Your task to perform on an android device: turn on data saver in the chrome app Image 0: 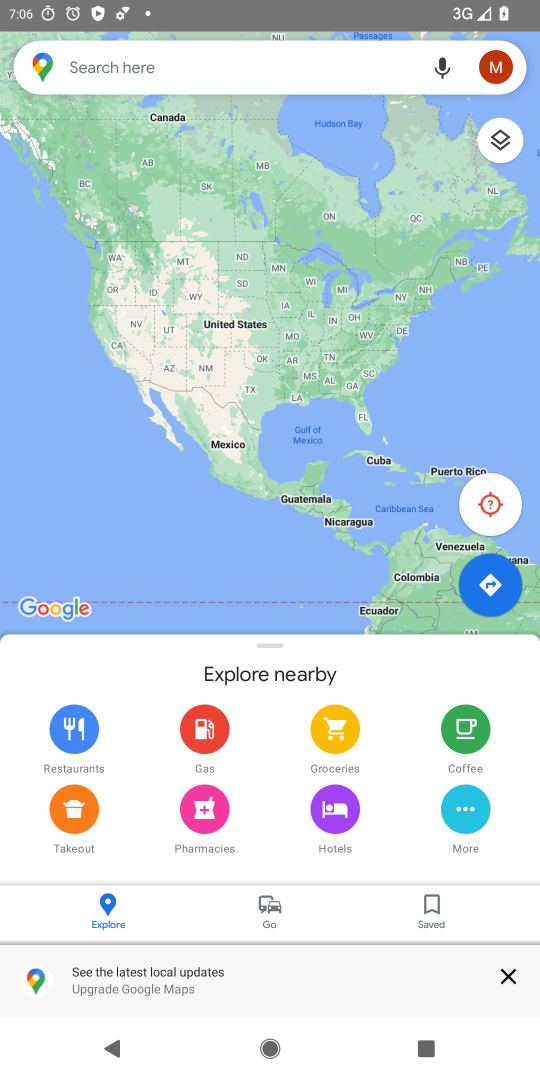
Step 0: press home button
Your task to perform on an android device: turn on data saver in the chrome app Image 1: 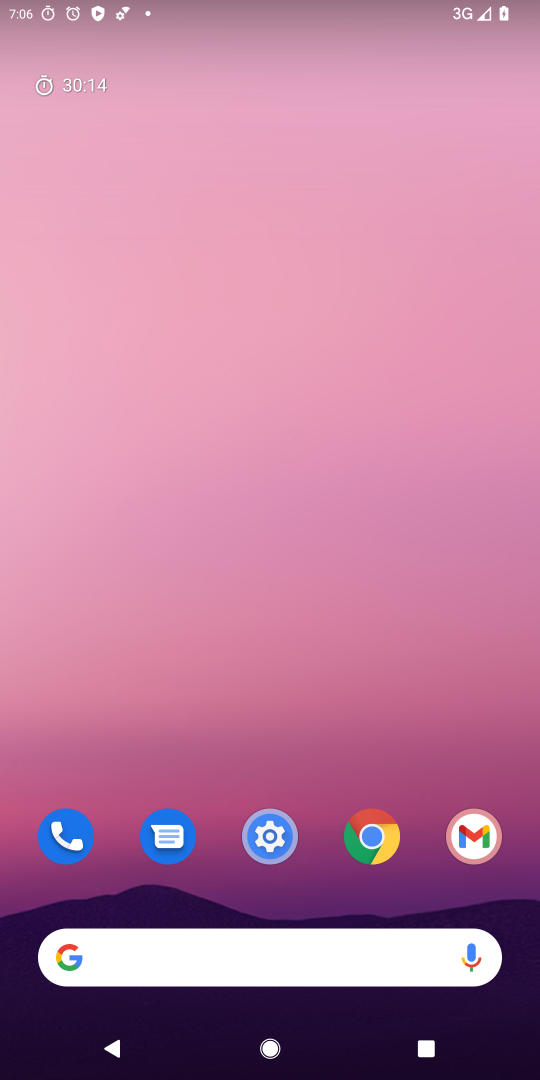
Step 1: drag from (310, 875) to (376, 271)
Your task to perform on an android device: turn on data saver in the chrome app Image 2: 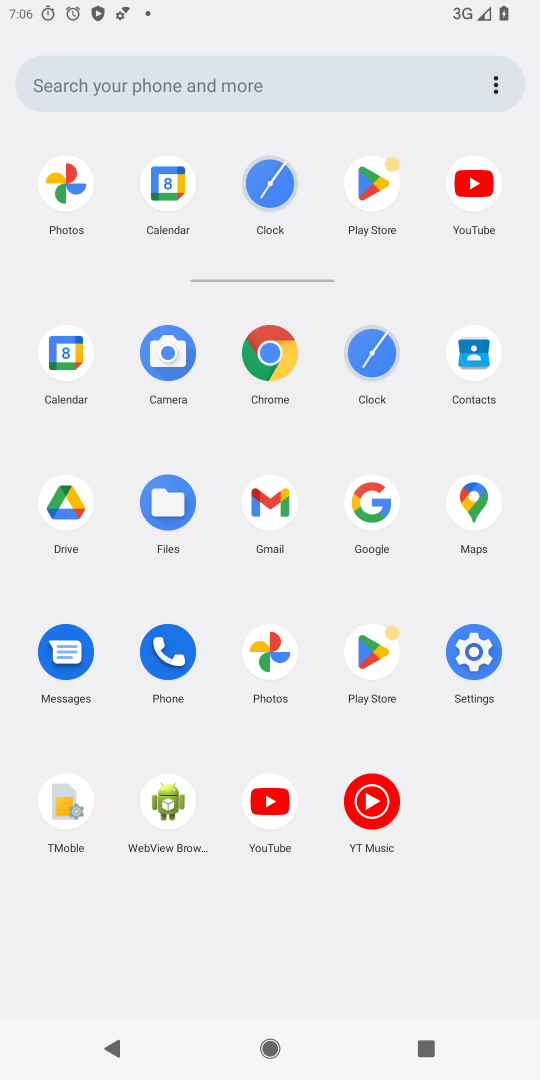
Step 2: click (287, 360)
Your task to perform on an android device: turn on data saver in the chrome app Image 3: 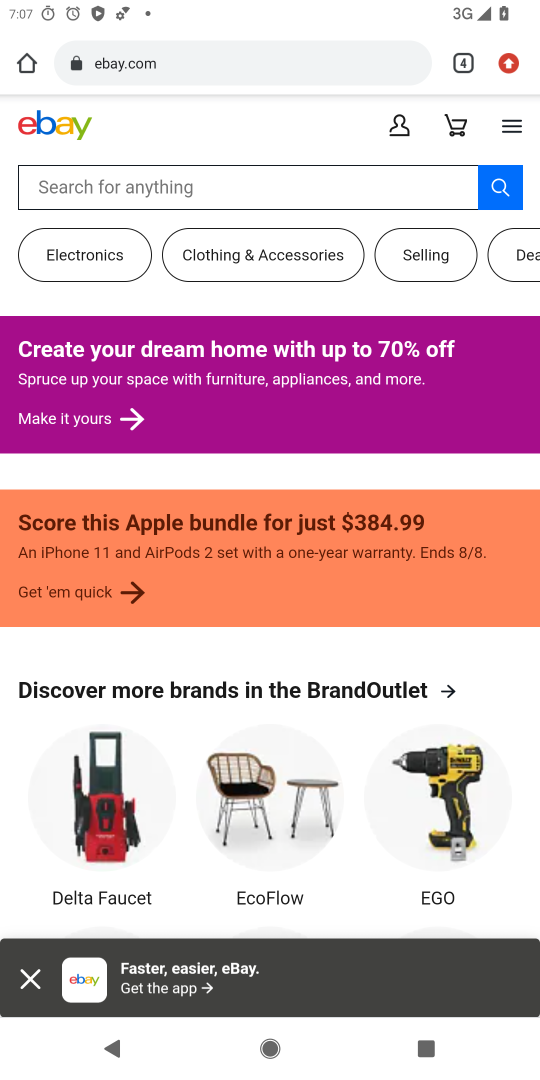
Step 3: click (515, 74)
Your task to perform on an android device: turn on data saver in the chrome app Image 4: 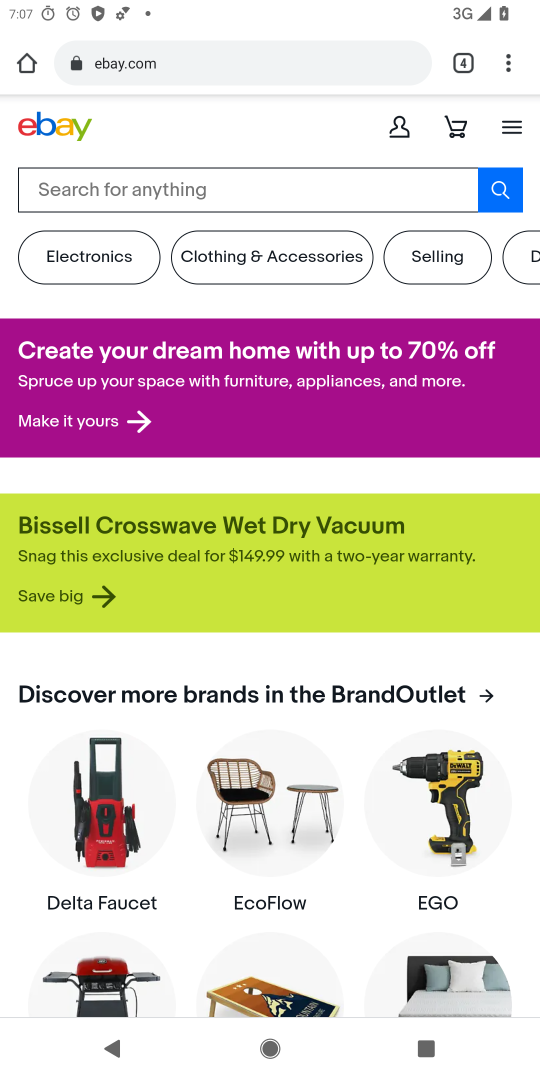
Step 4: click (507, 64)
Your task to perform on an android device: turn on data saver in the chrome app Image 5: 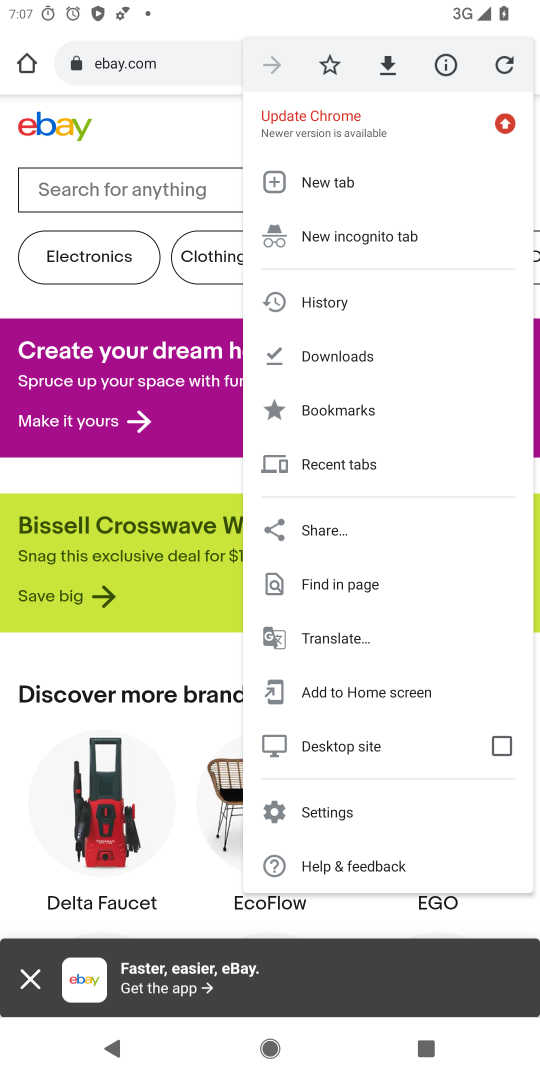
Step 5: click (356, 799)
Your task to perform on an android device: turn on data saver in the chrome app Image 6: 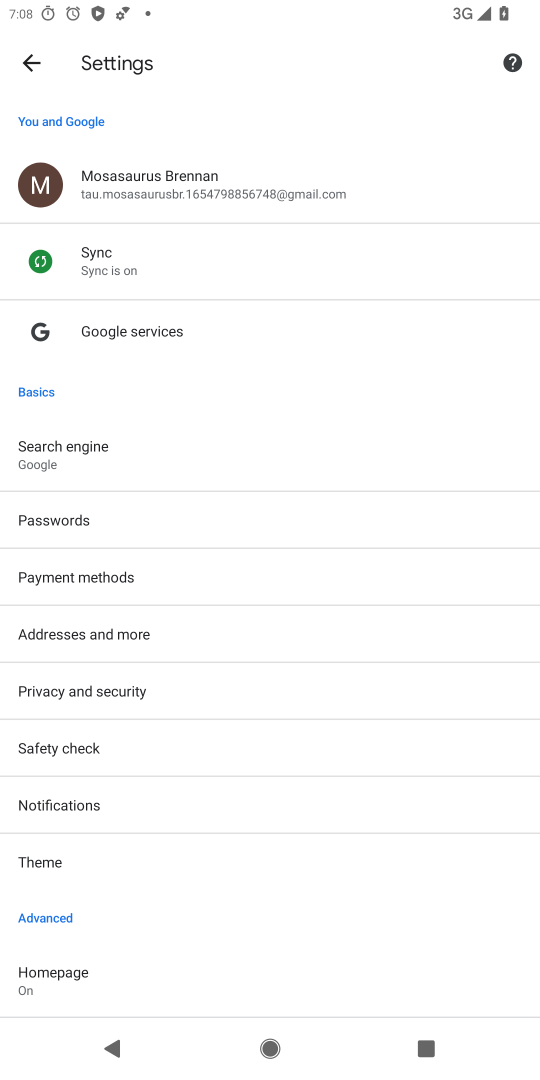
Step 6: drag from (177, 853) to (246, 370)
Your task to perform on an android device: turn on data saver in the chrome app Image 7: 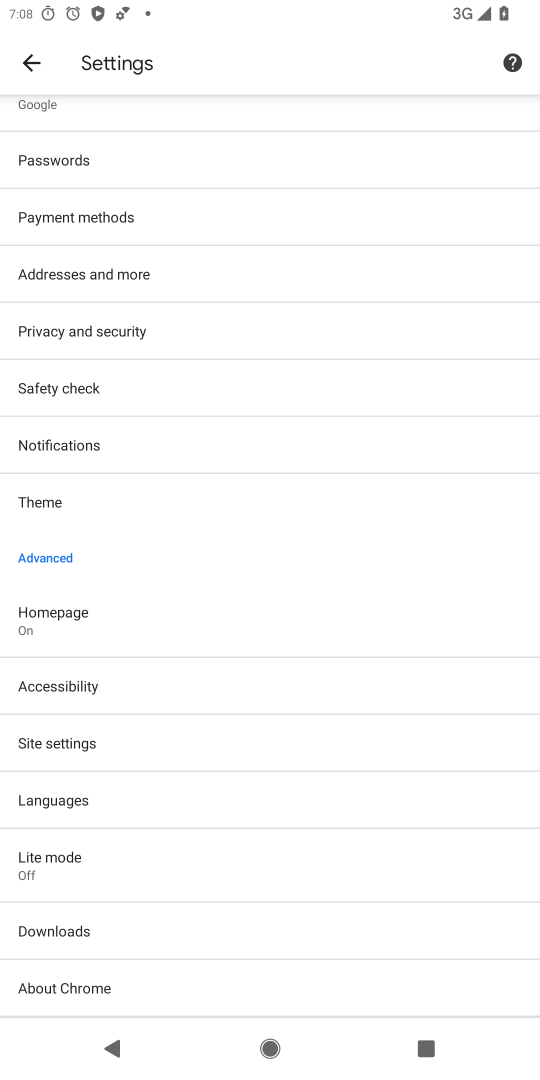
Step 7: click (129, 855)
Your task to perform on an android device: turn on data saver in the chrome app Image 8: 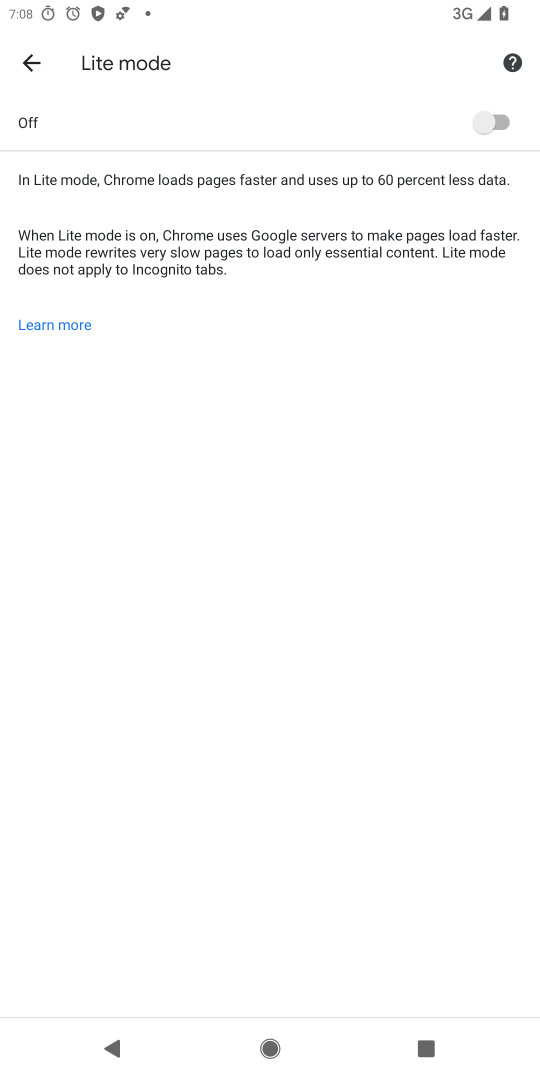
Step 8: click (477, 128)
Your task to perform on an android device: turn on data saver in the chrome app Image 9: 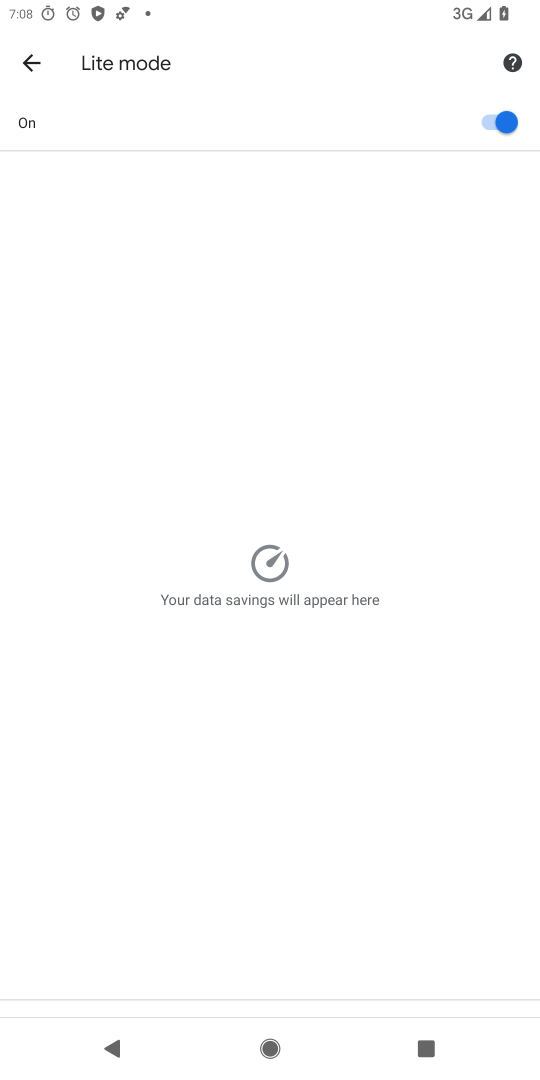
Step 9: task complete